Your task to perform on an android device: Empty the shopping cart on amazon.com. Image 0: 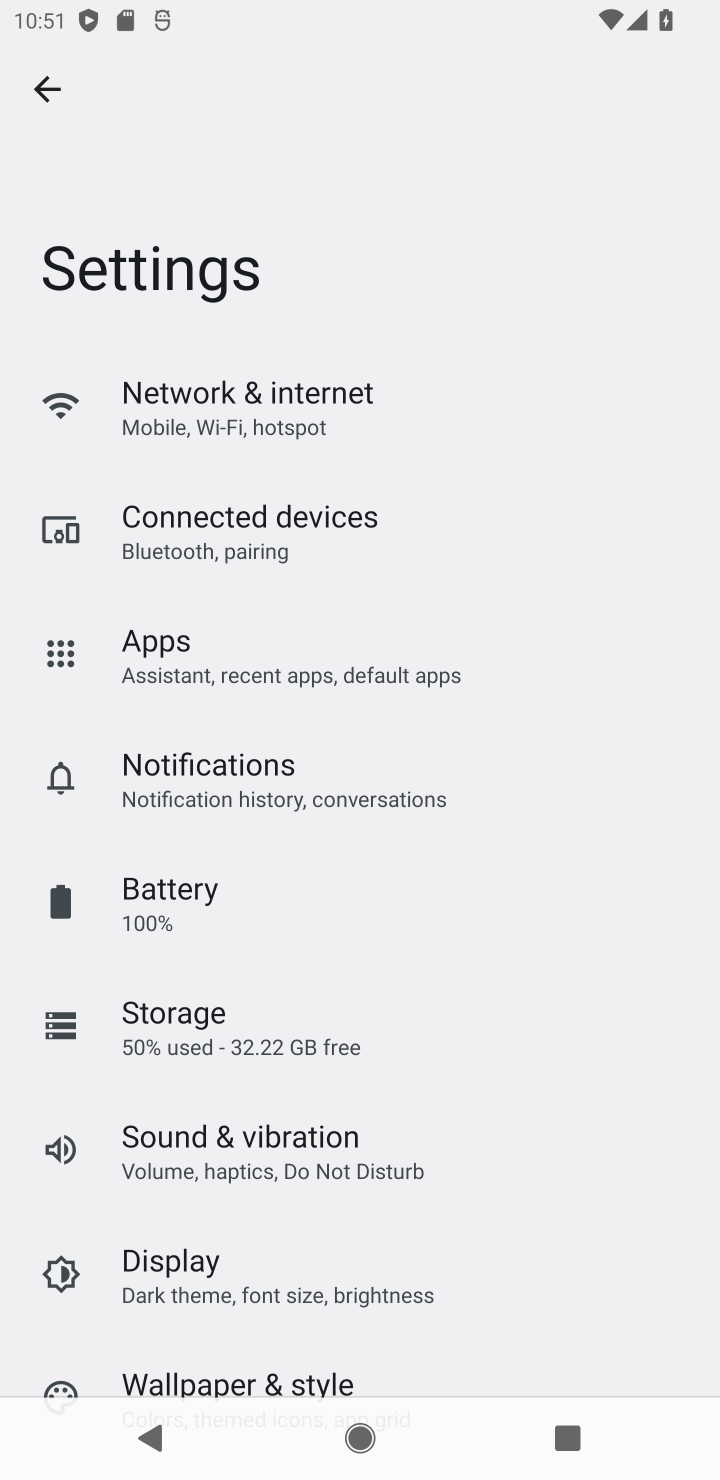
Step 0: press home button
Your task to perform on an android device: Empty the shopping cart on amazon.com. Image 1: 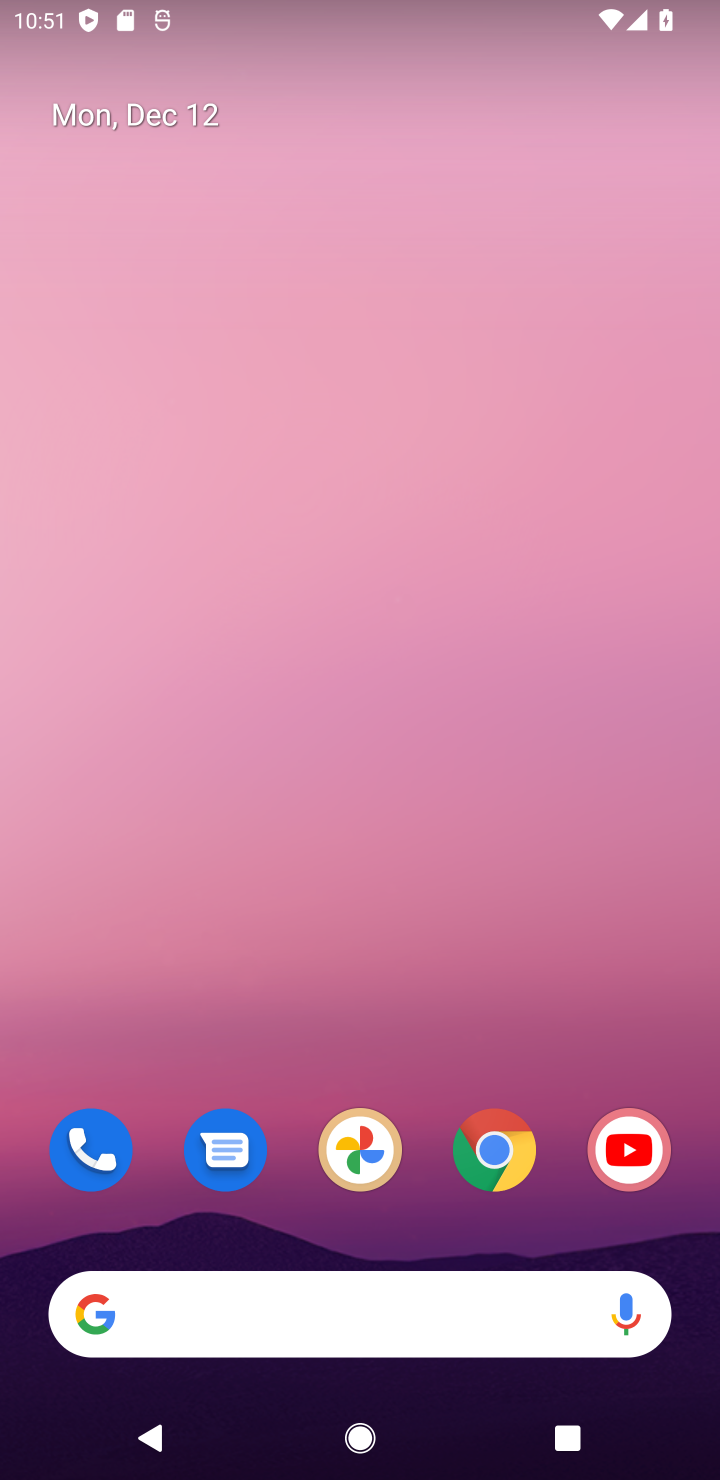
Step 1: click (495, 1162)
Your task to perform on an android device: Empty the shopping cart on amazon.com. Image 2: 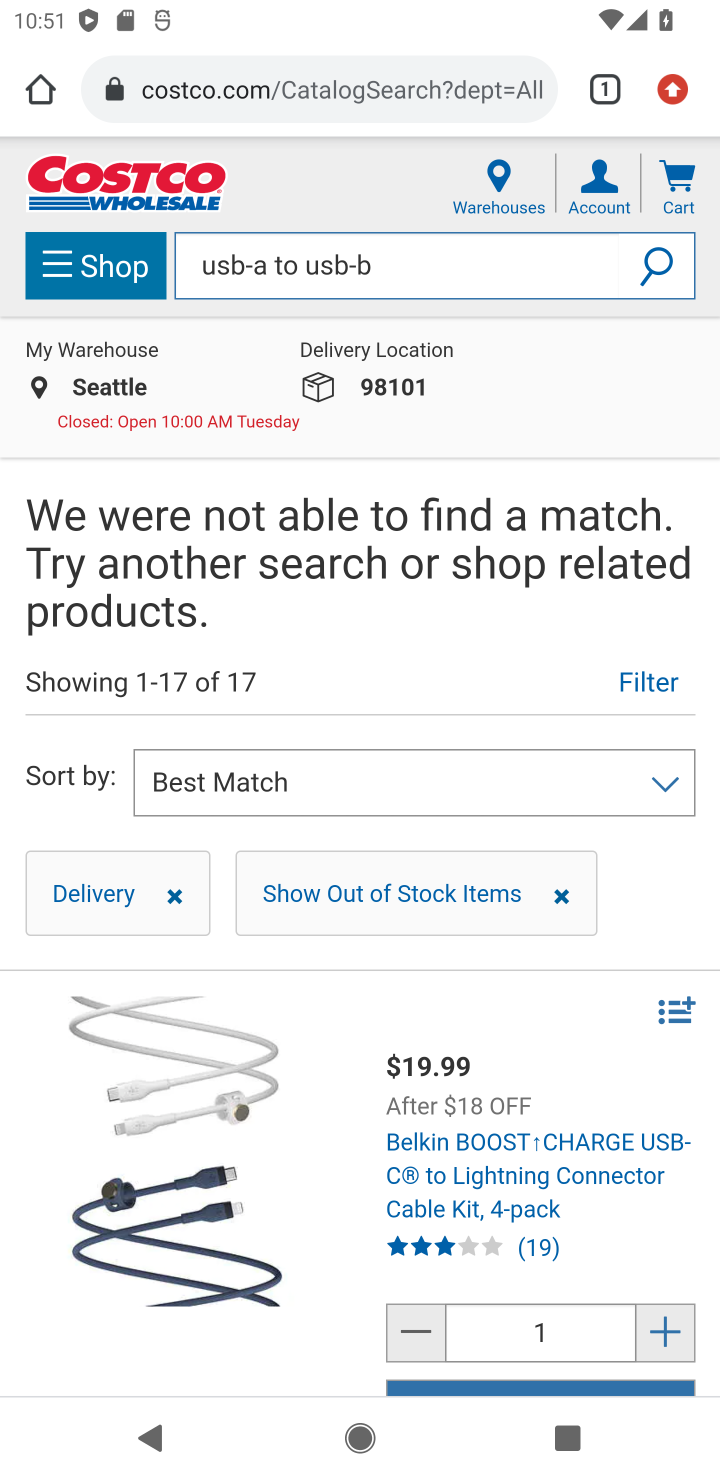
Step 2: click (279, 90)
Your task to perform on an android device: Empty the shopping cart on amazon.com. Image 3: 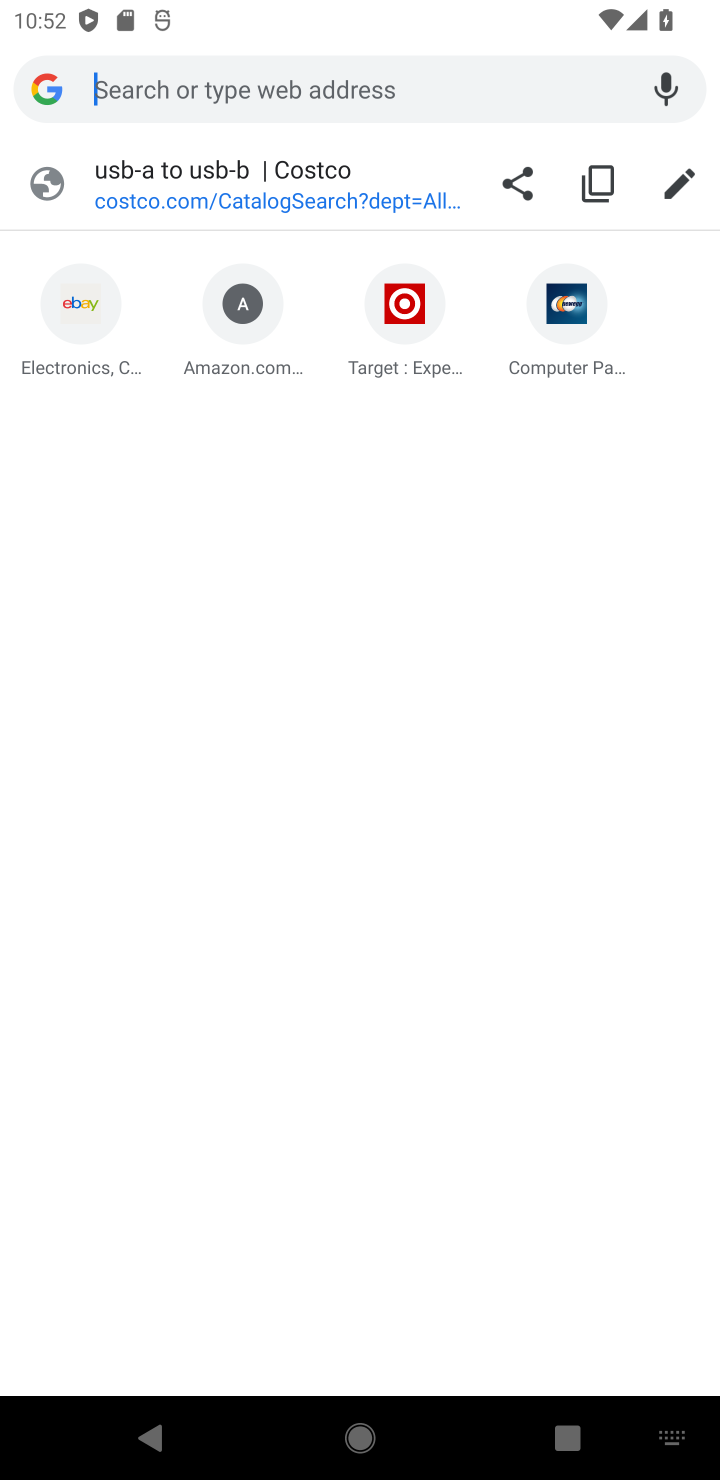
Step 3: click (215, 315)
Your task to perform on an android device: Empty the shopping cart on amazon.com. Image 4: 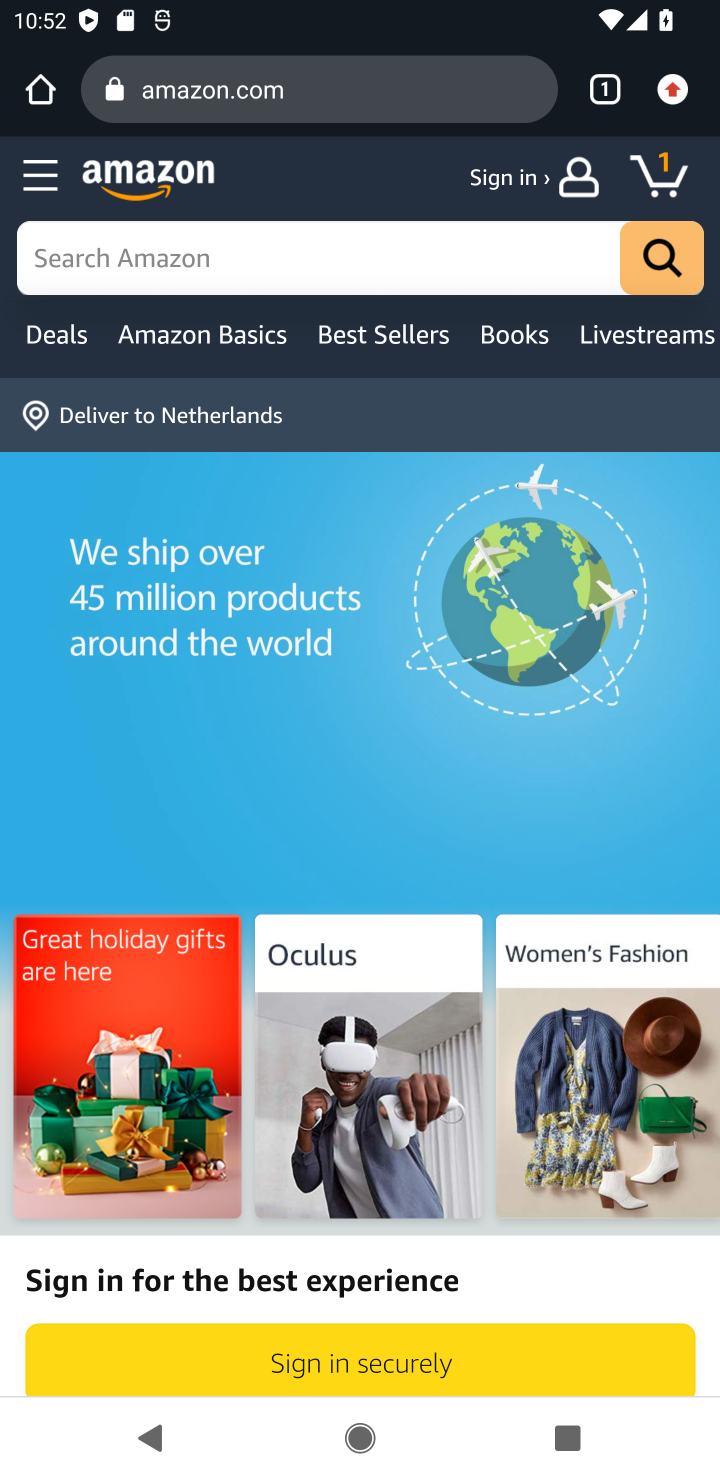
Step 4: click (657, 187)
Your task to perform on an android device: Empty the shopping cart on amazon.com. Image 5: 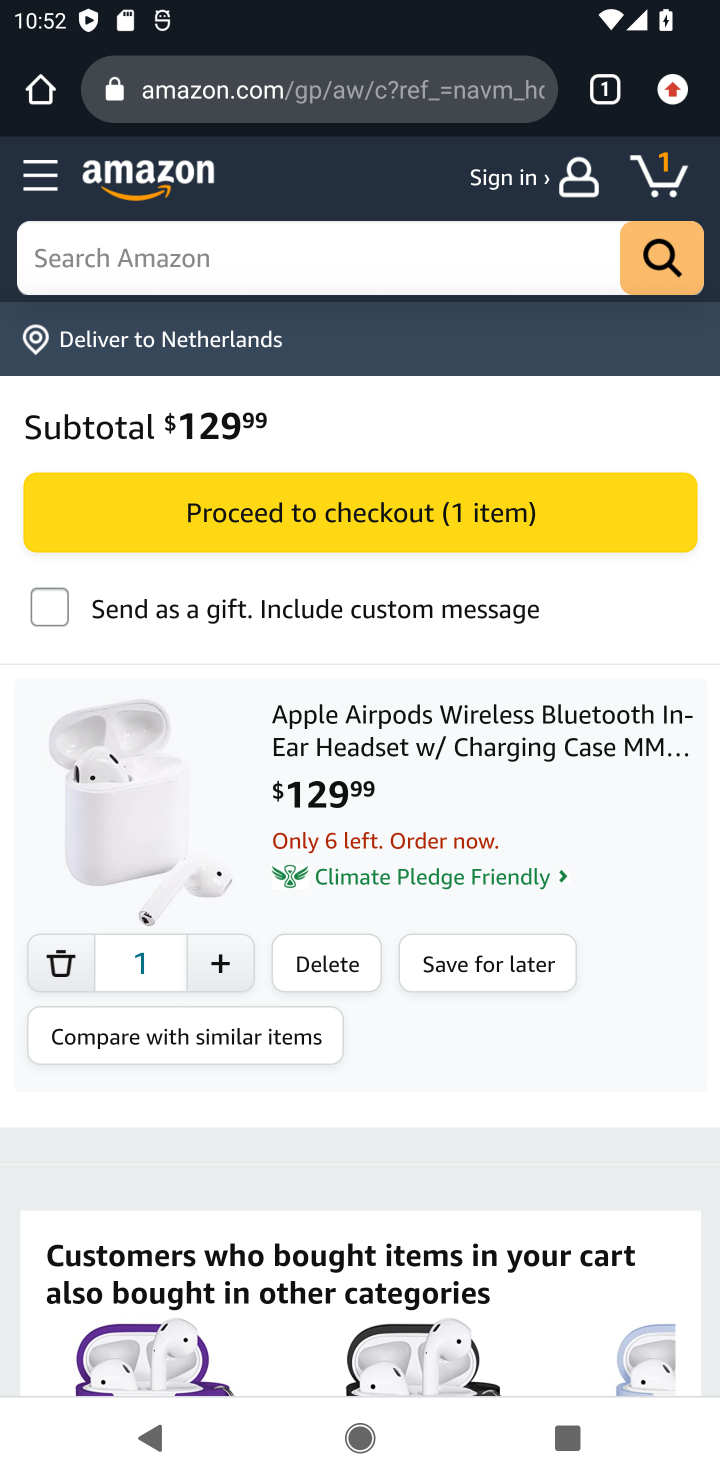
Step 5: click (315, 961)
Your task to perform on an android device: Empty the shopping cart on amazon.com. Image 6: 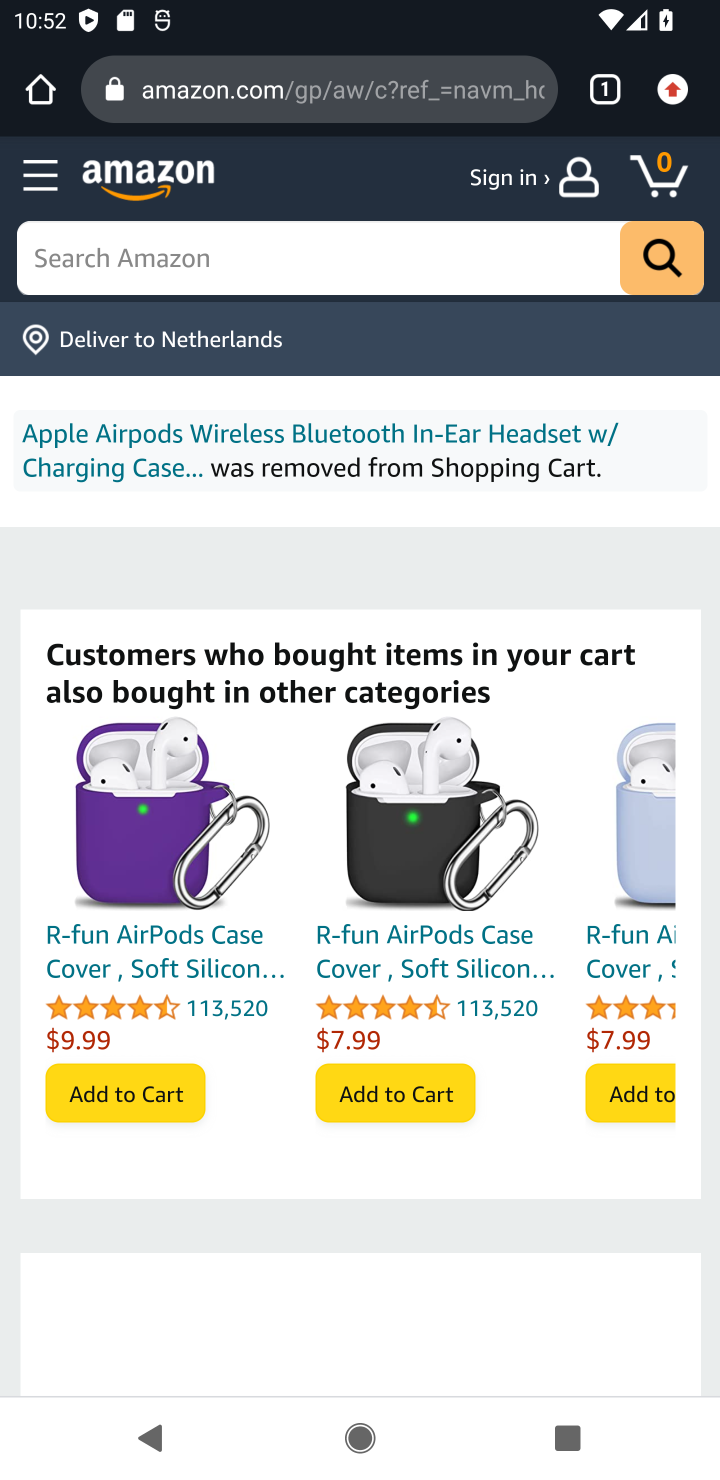
Step 6: task complete